Your task to perform on an android device: What is the recent news? Image 0: 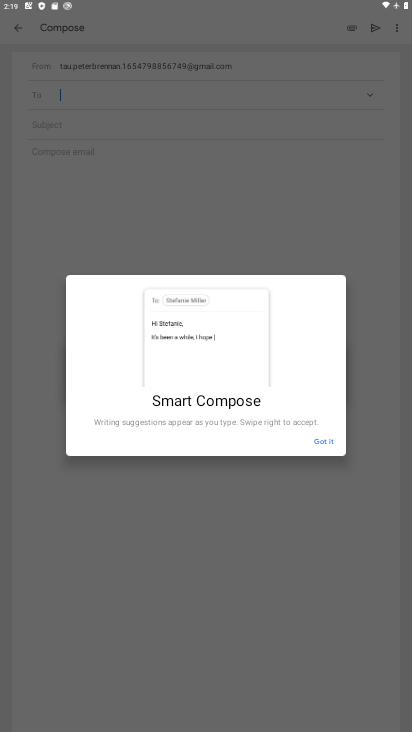
Step 0: press home button
Your task to perform on an android device: What is the recent news? Image 1: 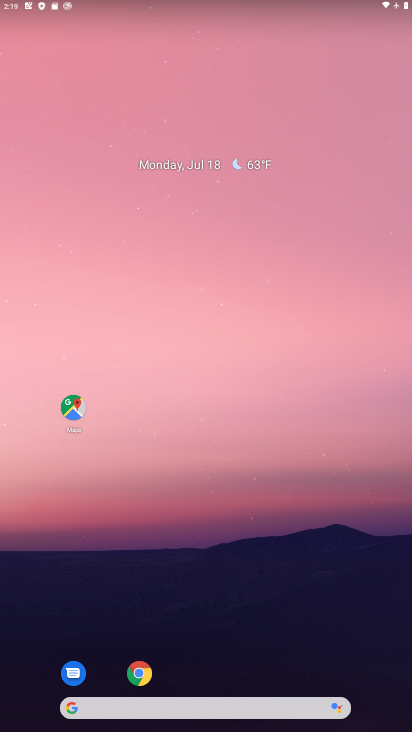
Step 1: drag from (231, 572) to (209, 119)
Your task to perform on an android device: What is the recent news? Image 2: 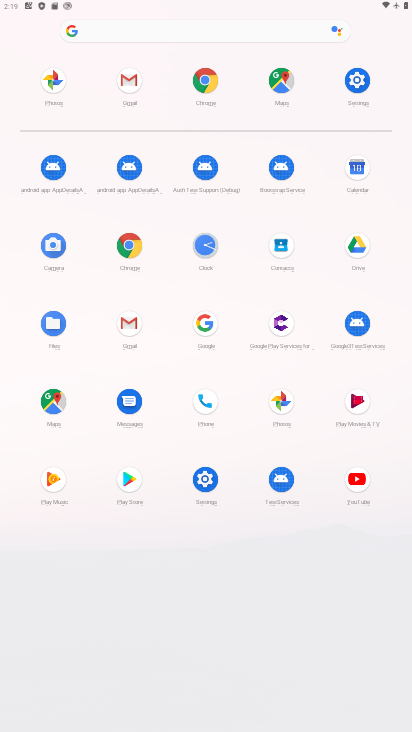
Step 2: click (132, 234)
Your task to perform on an android device: What is the recent news? Image 3: 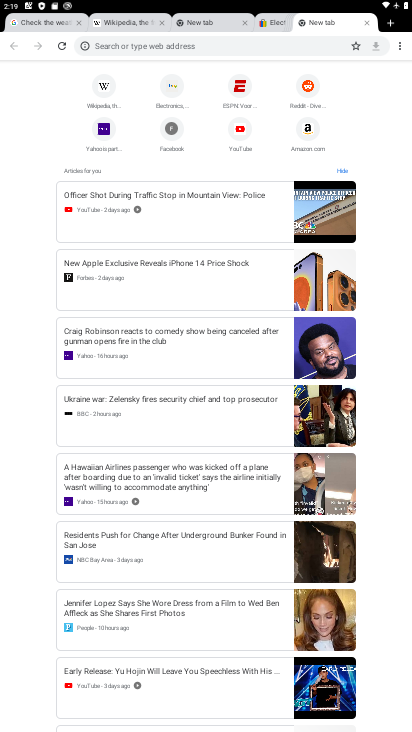
Step 3: click (256, 49)
Your task to perform on an android device: What is the recent news? Image 4: 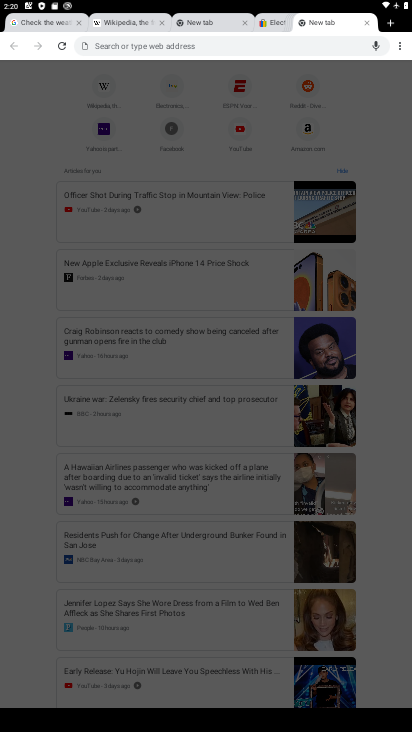
Step 4: type "What is the recent news "
Your task to perform on an android device: What is the recent news? Image 5: 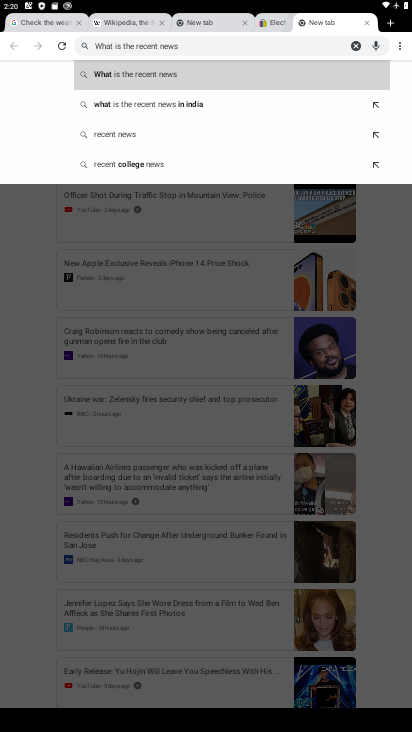
Step 5: click (159, 74)
Your task to perform on an android device: What is the recent news? Image 6: 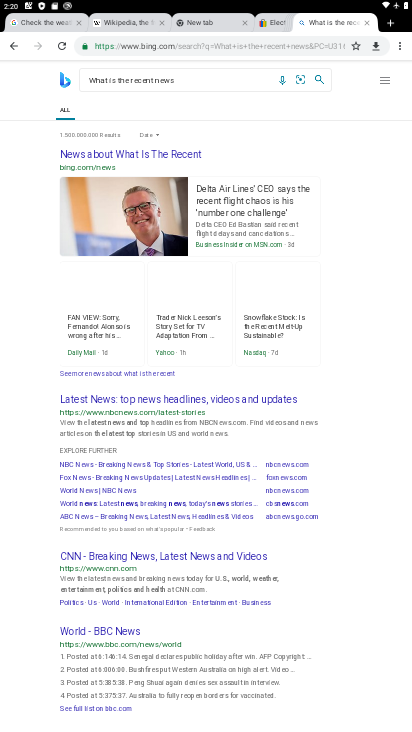
Step 6: task complete